Your task to perform on an android device: Go to network settings Image 0: 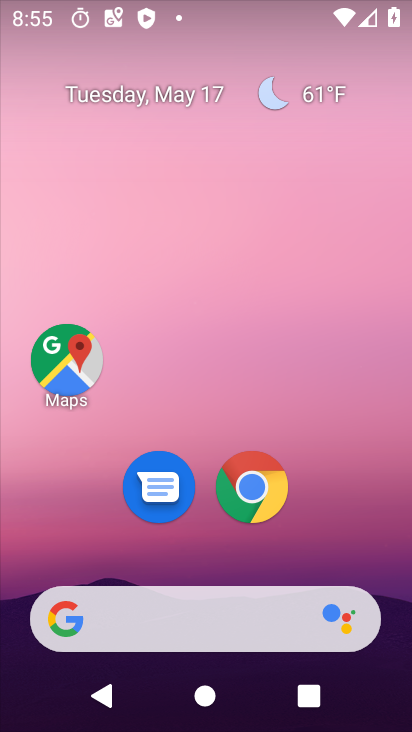
Step 0: drag from (188, 624) to (288, 83)
Your task to perform on an android device: Go to network settings Image 1: 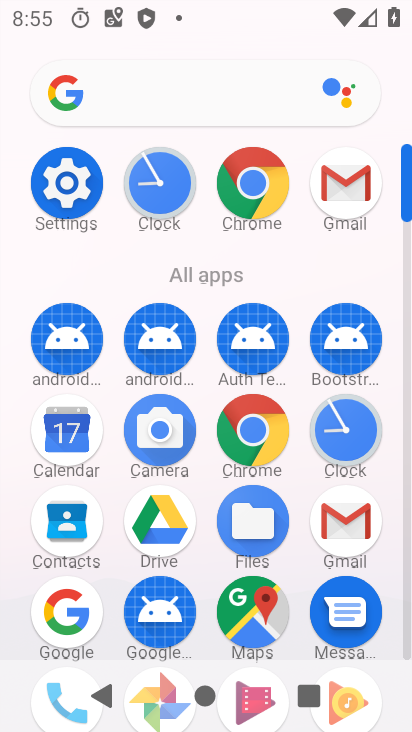
Step 1: click (71, 183)
Your task to perform on an android device: Go to network settings Image 2: 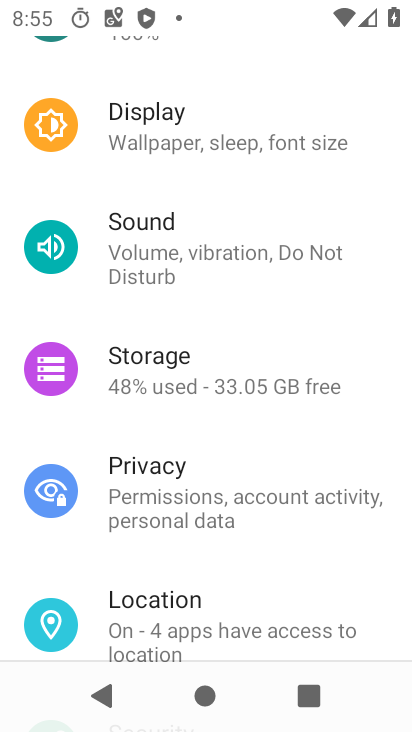
Step 2: drag from (332, 92) to (156, 577)
Your task to perform on an android device: Go to network settings Image 3: 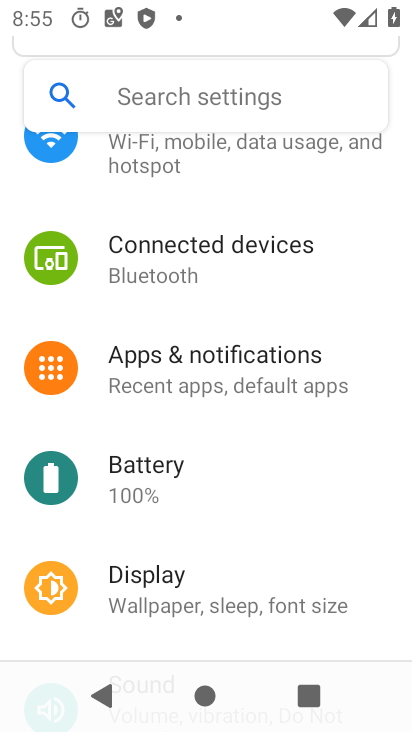
Step 3: drag from (309, 169) to (198, 591)
Your task to perform on an android device: Go to network settings Image 4: 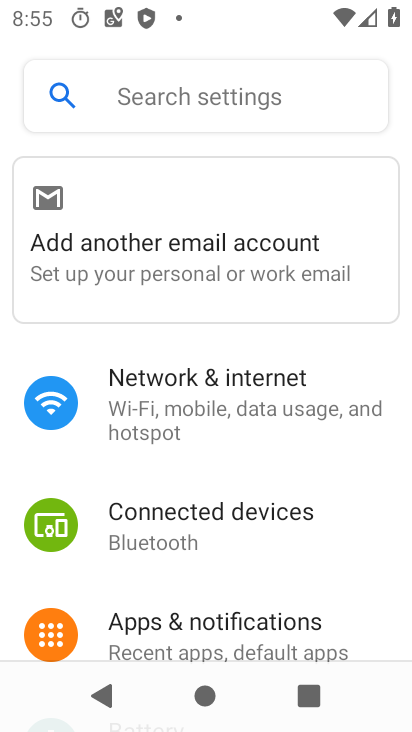
Step 4: click (225, 404)
Your task to perform on an android device: Go to network settings Image 5: 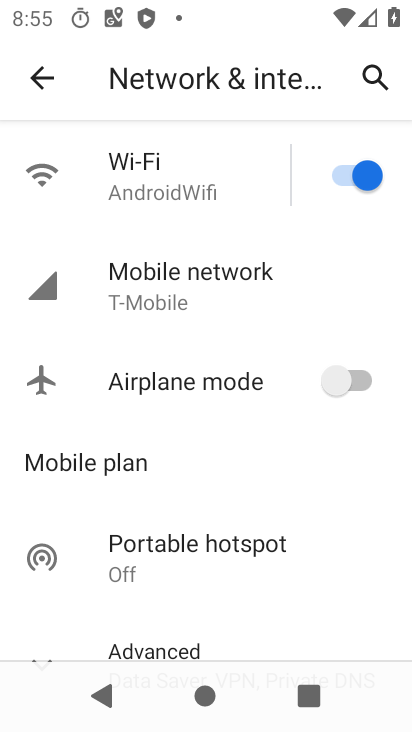
Step 5: task complete